Your task to perform on an android device: see sites visited before in the chrome app Image 0: 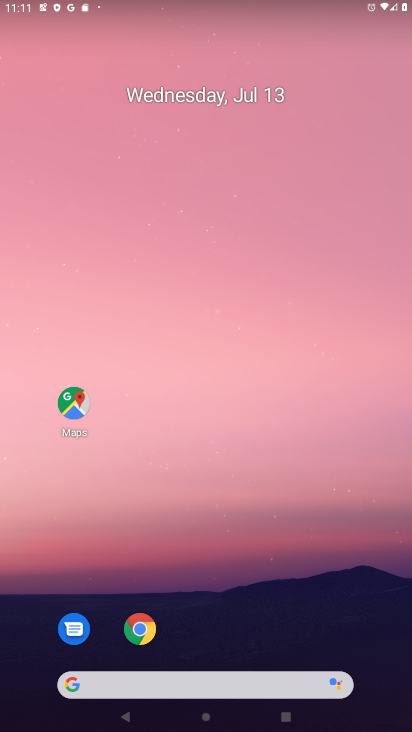
Step 0: drag from (329, 643) to (311, 300)
Your task to perform on an android device: see sites visited before in the chrome app Image 1: 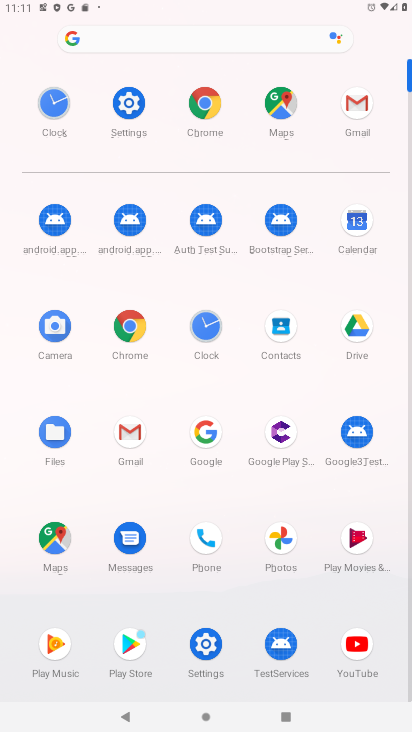
Step 1: click (136, 348)
Your task to perform on an android device: see sites visited before in the chrome app Image 2: 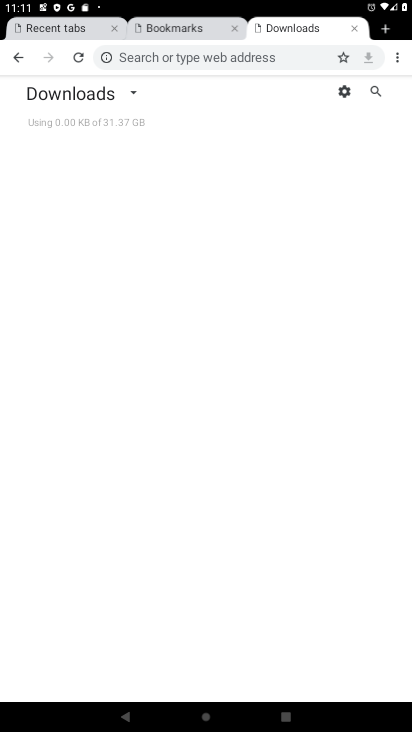
Step 2: task complete